Your task to perform on an android device: turn off data saver in the chrome app Image 0: 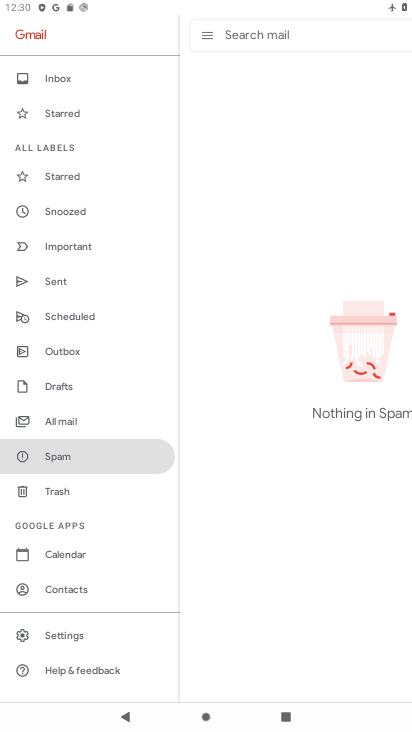
Step 0: press home button
Your task to perform on an android device: turn off data saver in the chrome app Image 1: 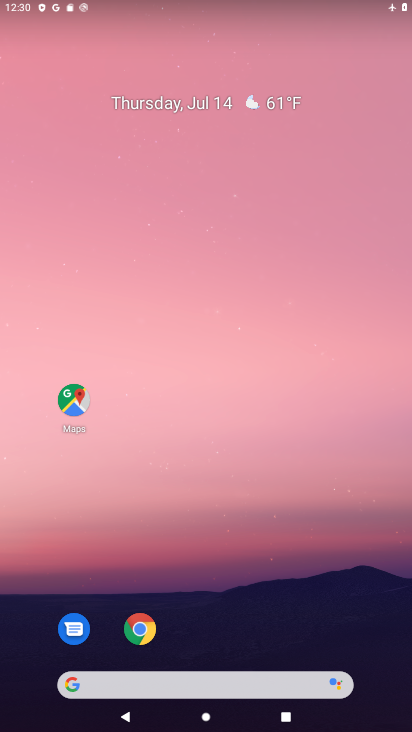
Step 1: drag from (229, 617) to (258, 119)
Your task to perform on an android device: turn off data saver in the chrome app Image 2: 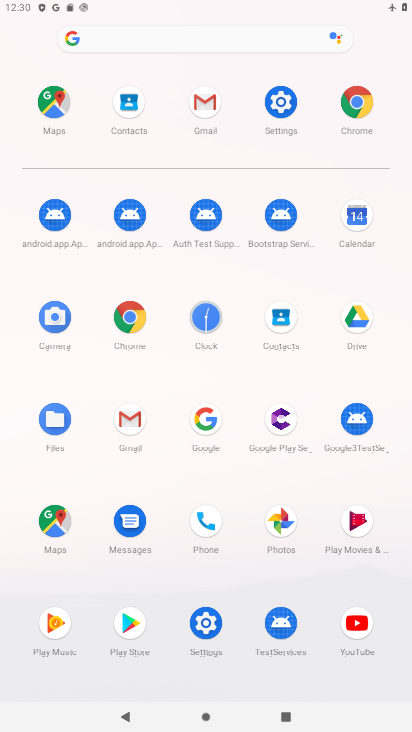
Step 2: click (350, 108)
Your task to perform on an android device: turn off data saver in the chrome app Image 3: 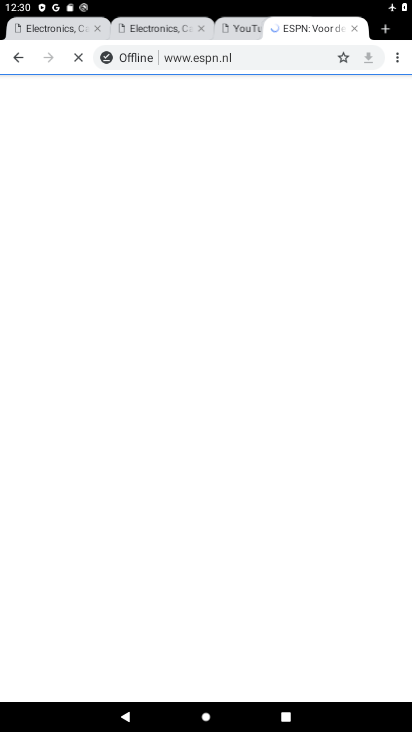
Step 3: click (401, 63)
Your task to perform on an android device: turn off data saver in the chrome app Image 4: 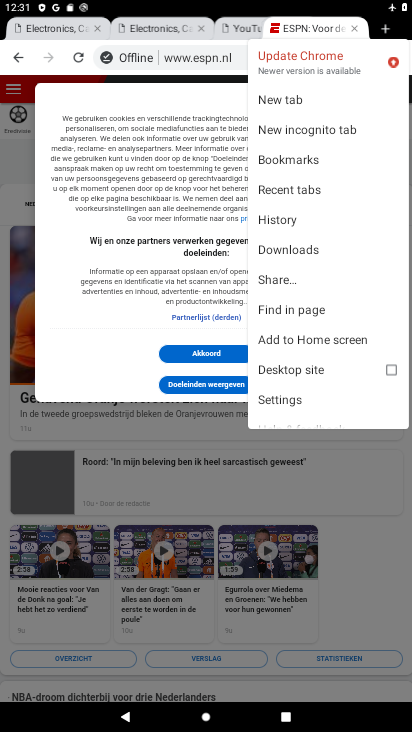
Step 4: click (282, 404)
Your task to perform on an android device: turn off data saver in the chrome app Image 5: 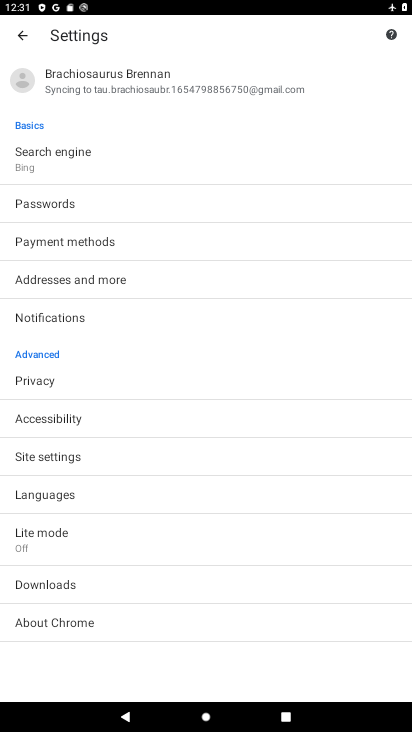
Step 5: click (52, 519)
Your task to perform on an android device: turn off data saver in the chrome app Image 6: 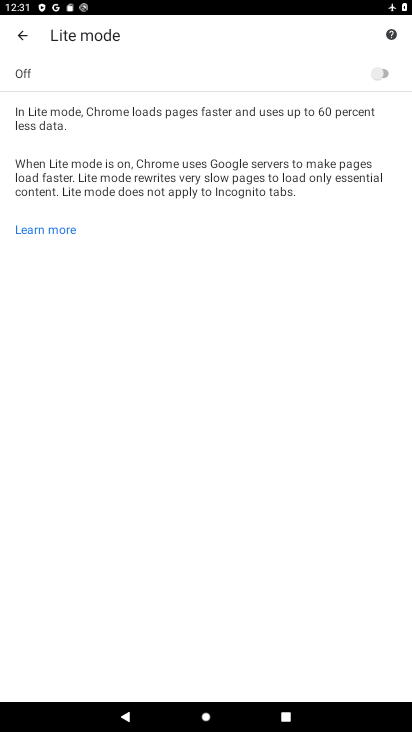
Step 6: task complete